Your task to perform on an android device: toggle wifi Image 0: 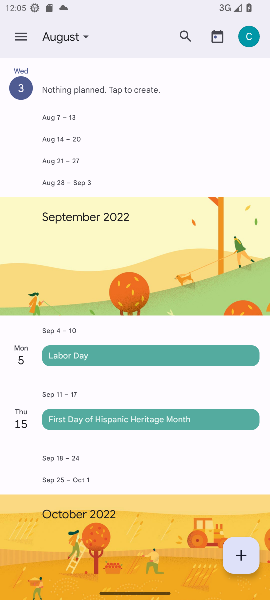
Step 0: press home button
Your task to perform on an android device: toggle wifi Image 1: 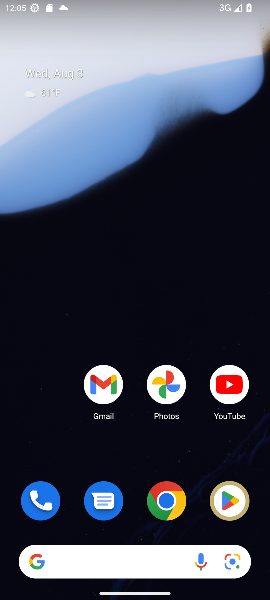
Step 1: drag from (138, 449) to (86, 51)
Your task to perform on an android device: toggle wifi Image 2: 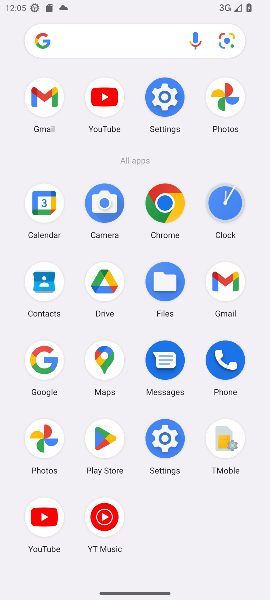
Step 2: click (161, 445)
Your task to perform on an android device: toggle wifi Image 3: 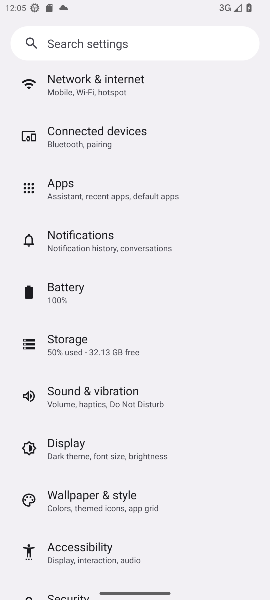
Step 3: click (120, 94)
Your task to perform on an android device: toggle wifi Image 4: 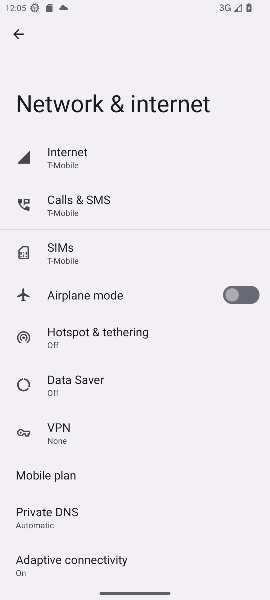
Step 4: click (58, 161)
Your task to perform on an android device: toggle wifi Image 5: 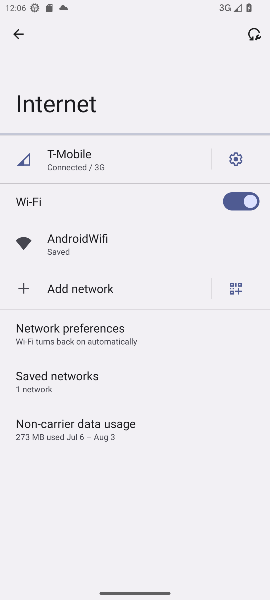
Step 5: click (231, 202)
Your task to perform on an android device: toggle wifi Image 6: 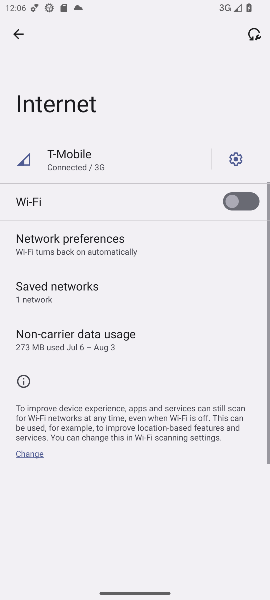
Step 6: task complete